Your task to perform on an android device: change notification settings in the gmail app Image 0: 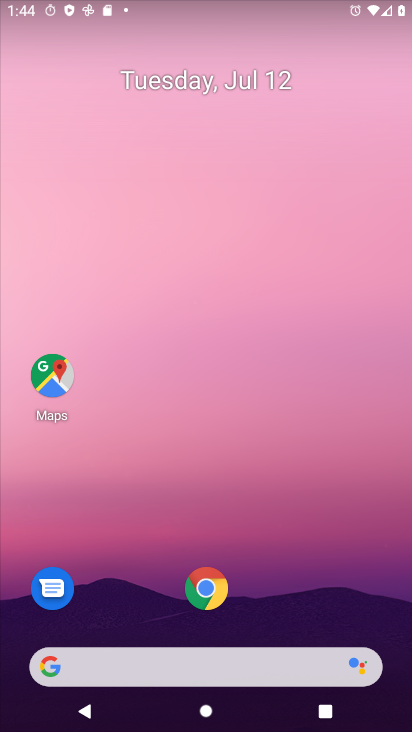
Step 0: drag from (198, 657) to (359, 164)
Your task to perform on an android device: change notification settings in the gmail app Image 1: 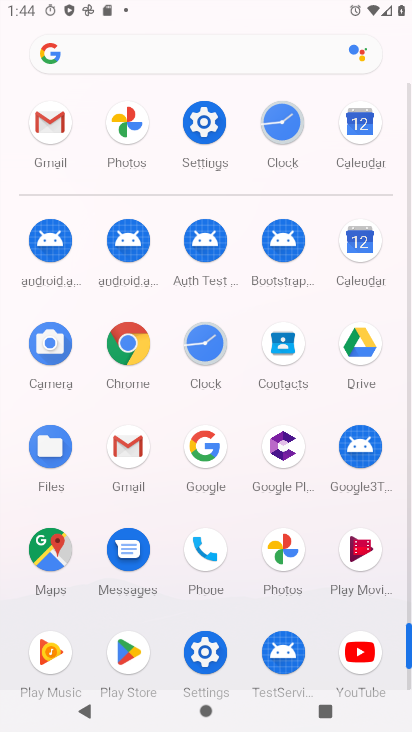
Step 1: click (52, 122)
Your task to perform on an android device: change notification settings in the gmail app Image 2: 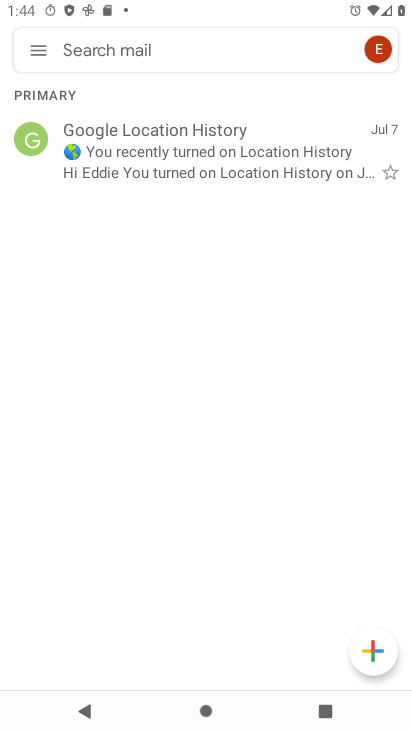
Step 2: click (40, 45)
Your task to perform on an android device: change notification settings in the gmail app Image 3: 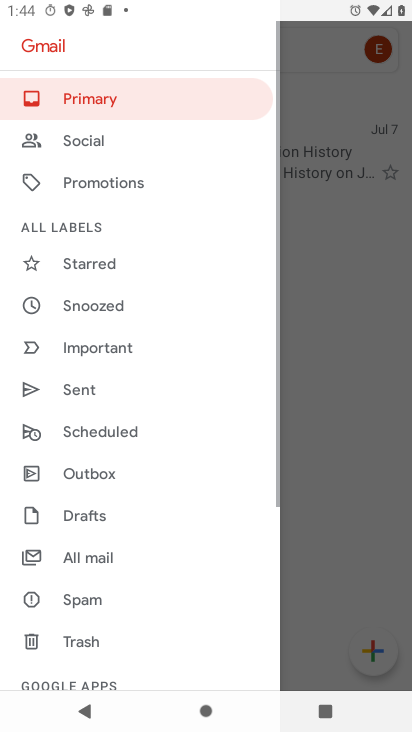
Step 3: drag from (155, 594) to (299, 89)
Your task to perform on an android device: change notification settings in the gmail app Image 4: 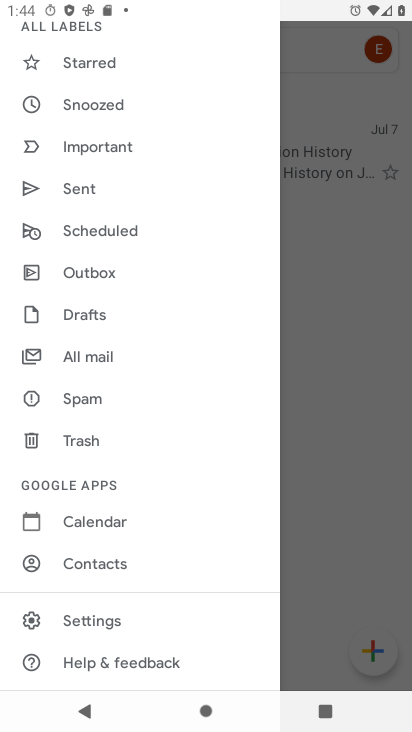
Step 4: click (105, 624)
Your task to perform on an android device: change notification settings in the gmail app Image 5: 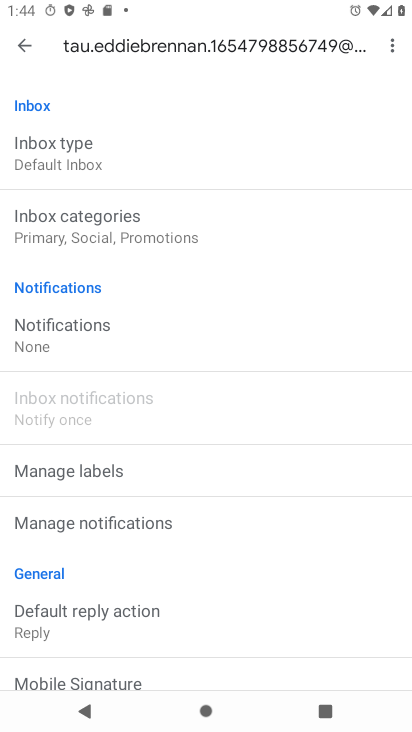
Step 5: click (90, 332)
Your task to perform on an android device: change notification settings in the gmail app Image 6: 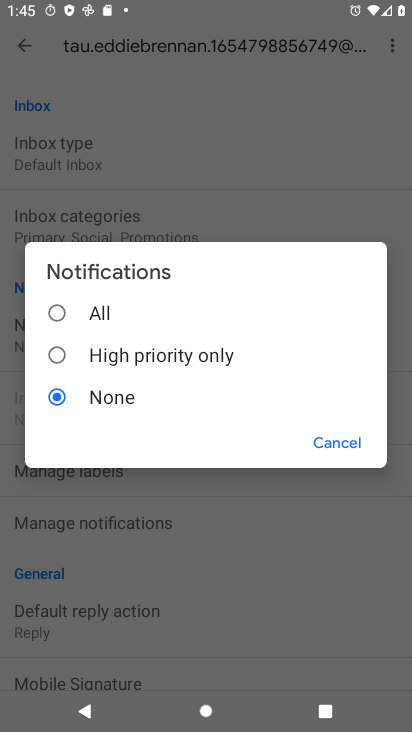
Step 6: click (59, 312)
Your task to perform on an android device: change notification settings in the gmail app Image 7: 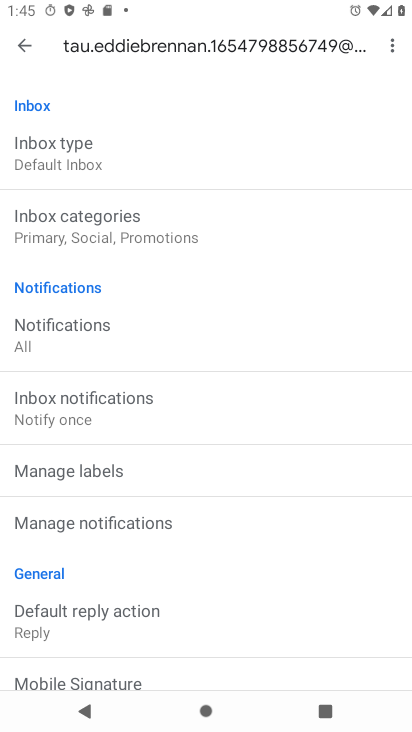
Step 7: task complete